Your task to perform on an android device: turn on bluetooth scan Image 0: 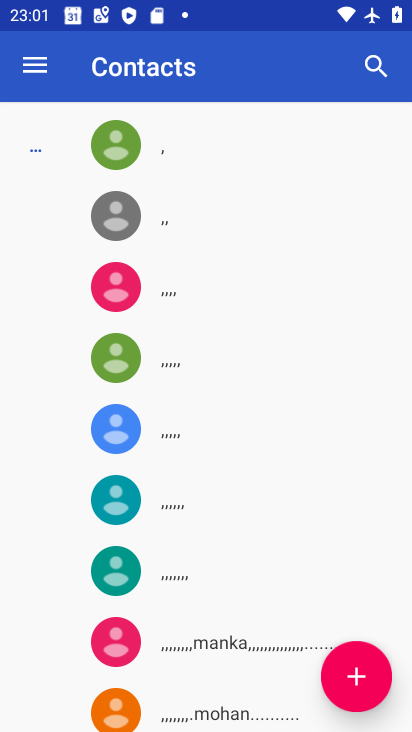
Step 0: press home button
Your task to perform on an android device: turn on bluetooth scan Image 1: 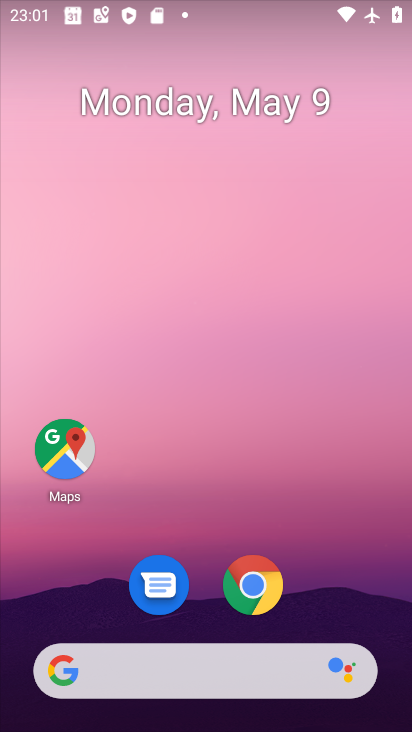
Step 1: drag from (247, 494) to (250, 0)
Your task to perform on an android device: turn on bluetooth scan Image 2: 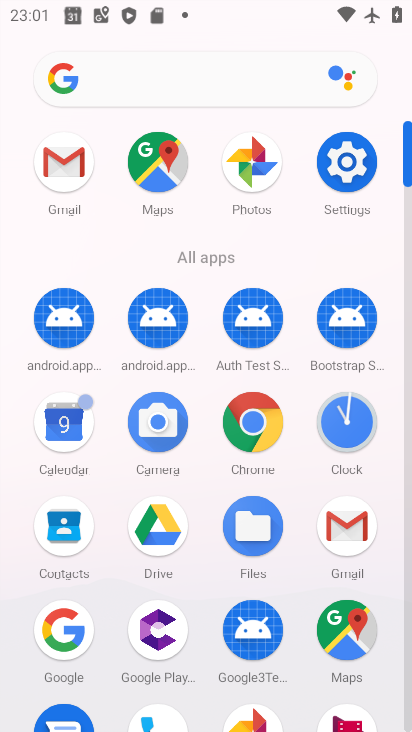
Step 2: click (346, 163)
Your task to perform on an android device: turn on bluetooth scan Image 3: 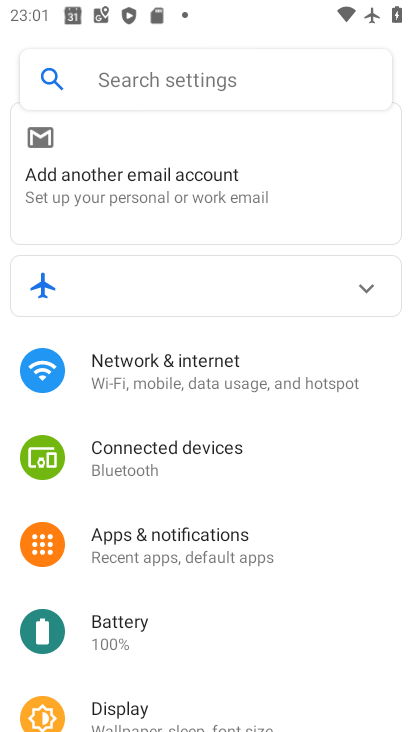
Step 3: drag from (220, 593) to (227, 70)
Your task to perform on an android device: turn on bluetooth scan Image 4: 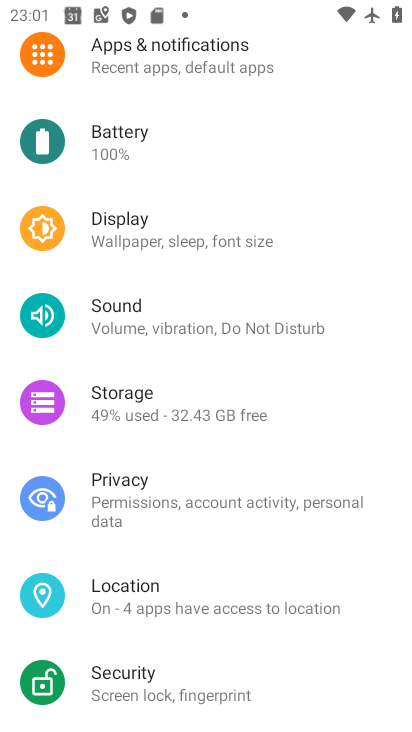
Step 4: click (185, 607)
Your task to perform on an android device: turn on bluetooth scan Image 5: 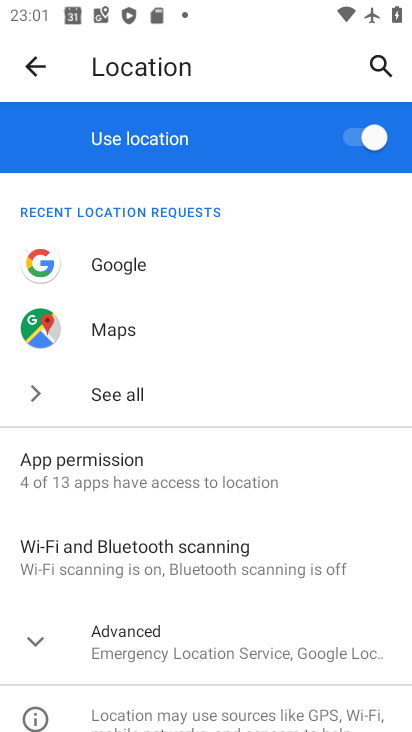
Step 5: click (227, 558)
Your task to perform on an android device: turn on bluetooth scan Image 6: 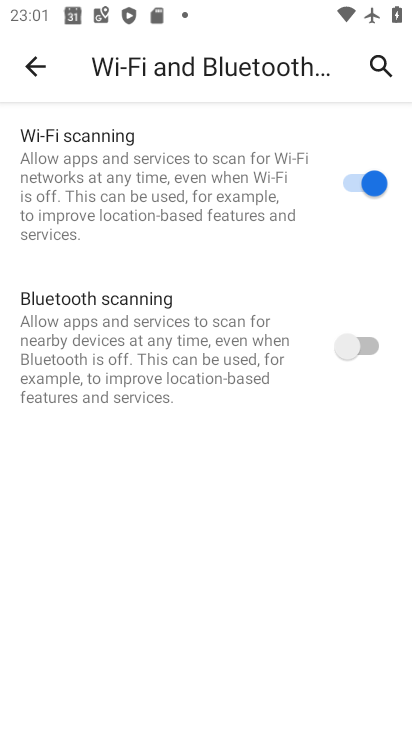
Step 6: click (363, 341)
Your task to perform on an android device: turn on bluetooth scan Image 7: 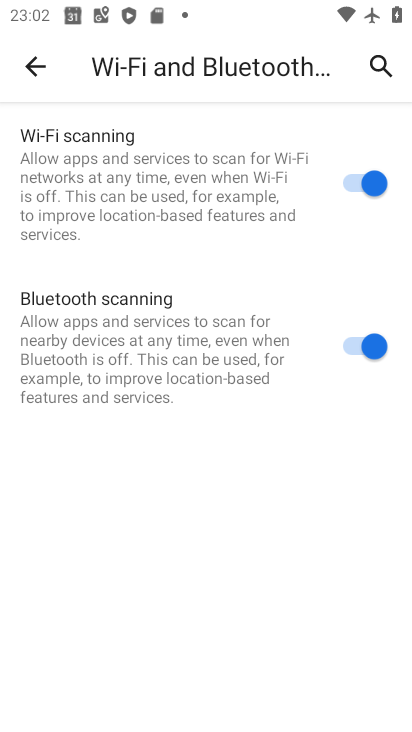
Step 7: task complete